Your task to perform on an android device: Go to internet settings Image 0: 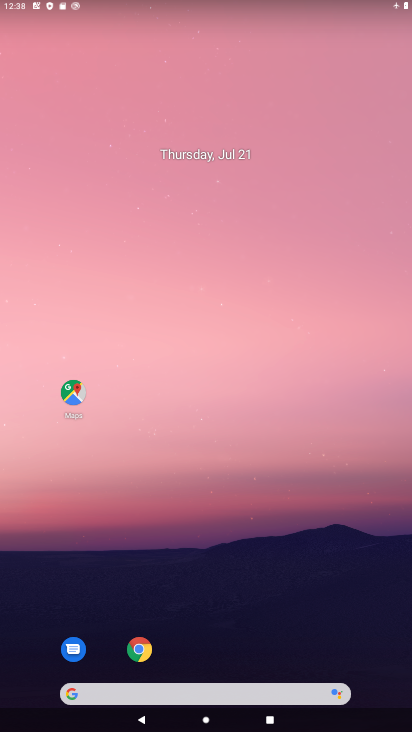
Step 0: drag from (221, 675) to (212, 227)
Your task to perform on an android device: Go to internet settings Image 1: 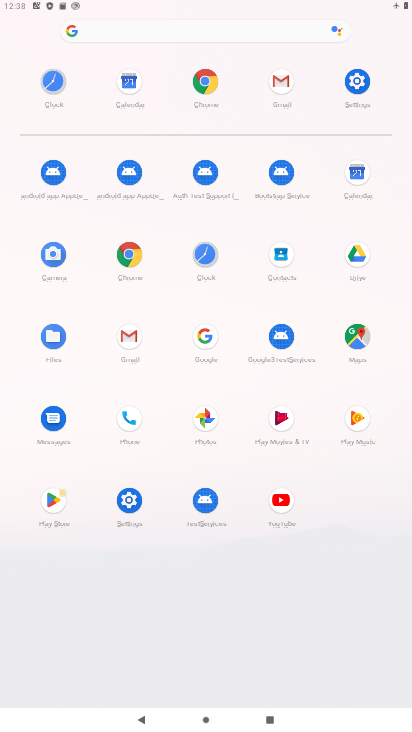
Step 1: click (353, 86)
Your task to perform on an android device: Go to internet settings Image 2: 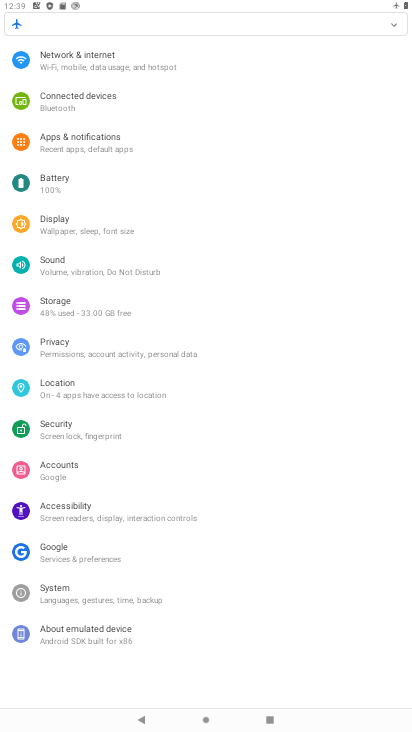
Step 2: click (74, 64)
Your task to perform on an android device: Go to internet settings Image 3: 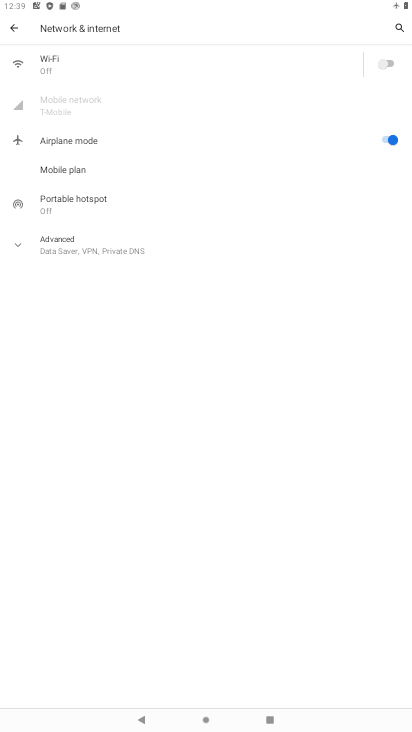
Step 3: task complete